Your task to perform on an android device: turn on the 12-hour format for clock Image 0: 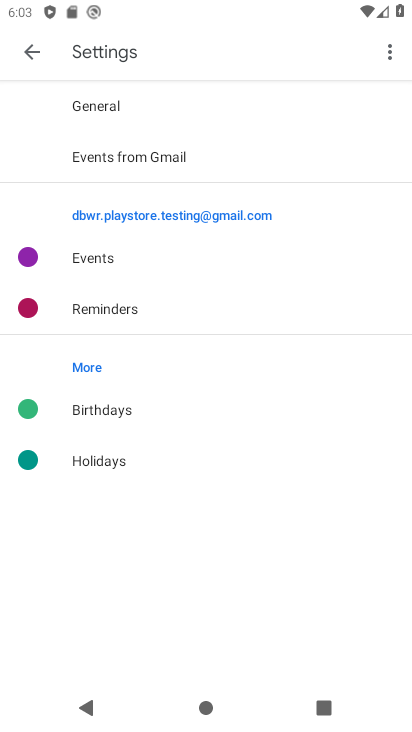
Step 0: press home button
Your task to perform on an android device: turn on the 12-hour format for clock Image 1: 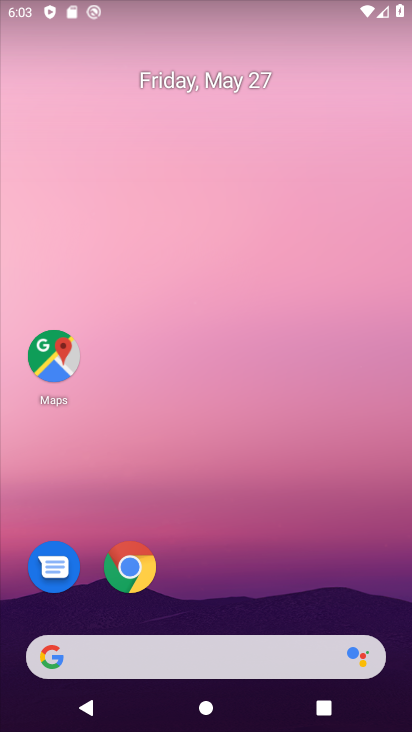
Step 1: drag from (250, 616) to (243, 214)
Your task to perform on an android device: turn on the 12-hour format for clock Image 2: 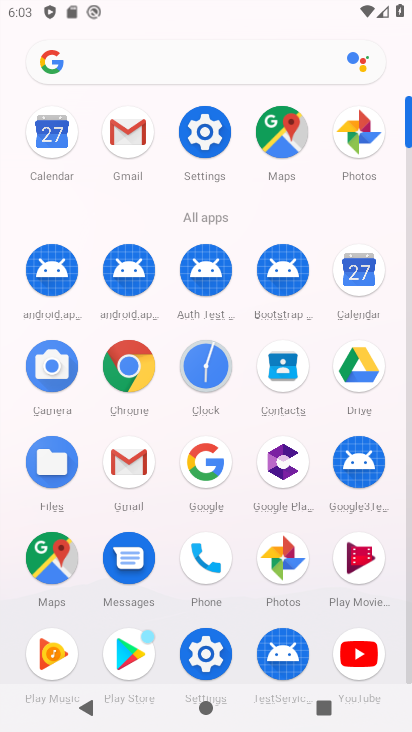
Step 2: click (205, 653)
Your task to perform on an android device: turn on the 12-hour format for clock Image 3: 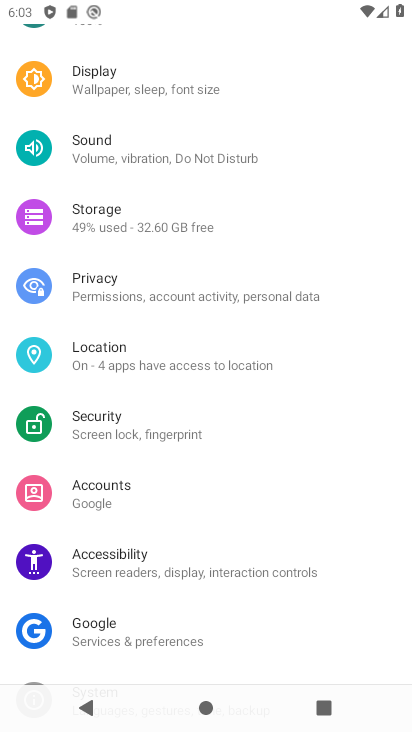
Step 3: drag from (184, 603) to (230, 255)
Your task to perform on an android device: turn on the 12-hour format for clock Image 4: 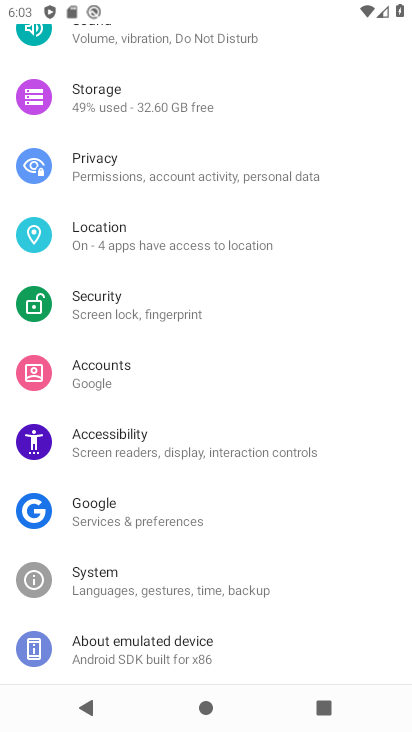
Step 4: press home button
Your task to perform on an android device: turn on the 12-hour format for clock Image 5: 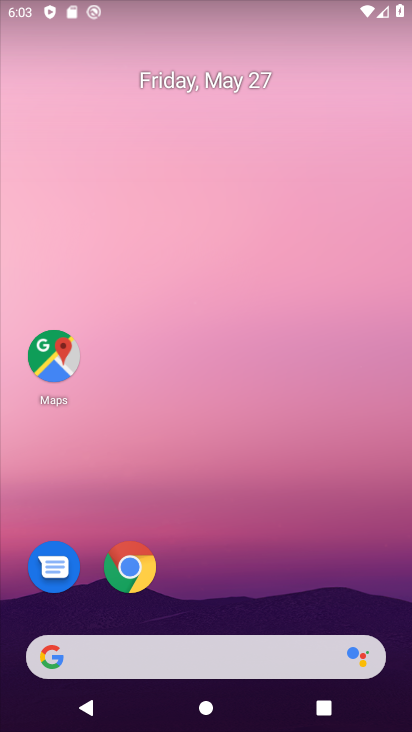
Step 5: drag from (207, 586) to (237, 169)
Your task to perform on an android device: turn on the 12-hour format for clock Image 6: 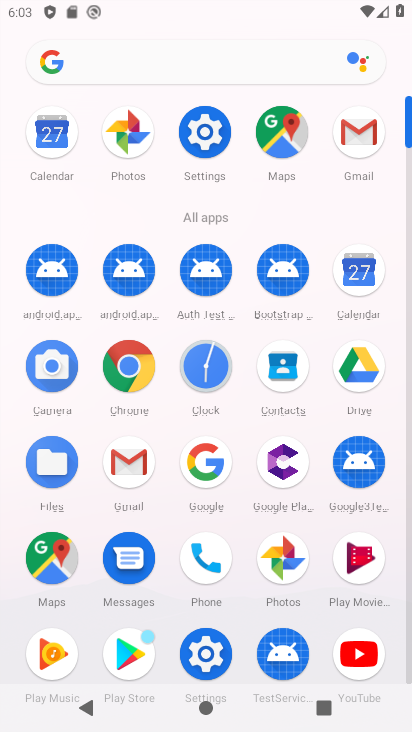
Step 6: click (204, 372)
Your task to perform on an android device: turn on the 12-hour format for clock Image 7: 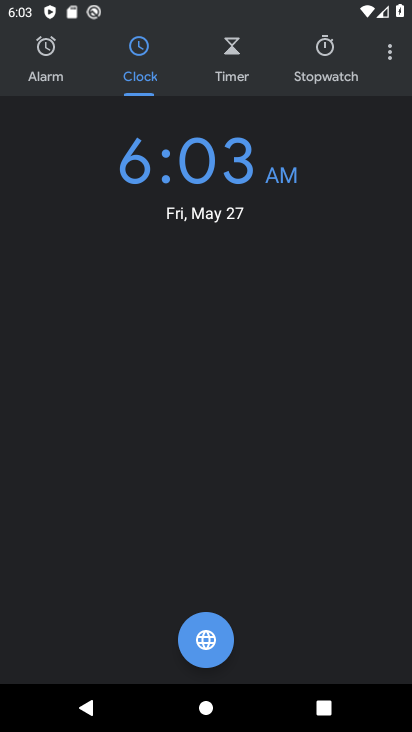
Step 7: click (388, 49)
Your task to perform on an android device: turn on the 12-hour format for clock Image 8: 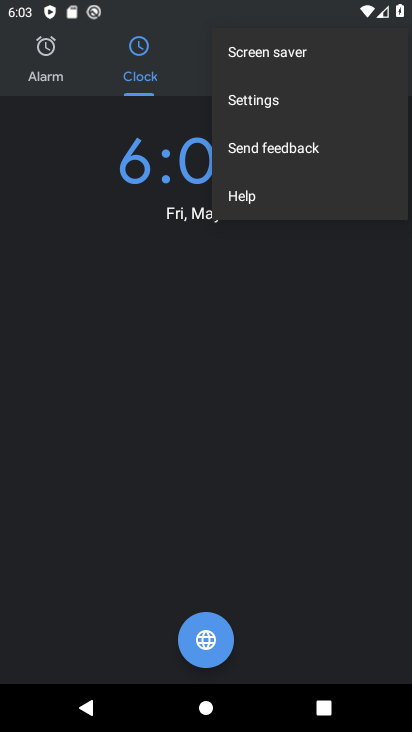
Step 8: click (245, 104)
Your task to perform on an android device: turn on the 12-hour format for clock Image 9: 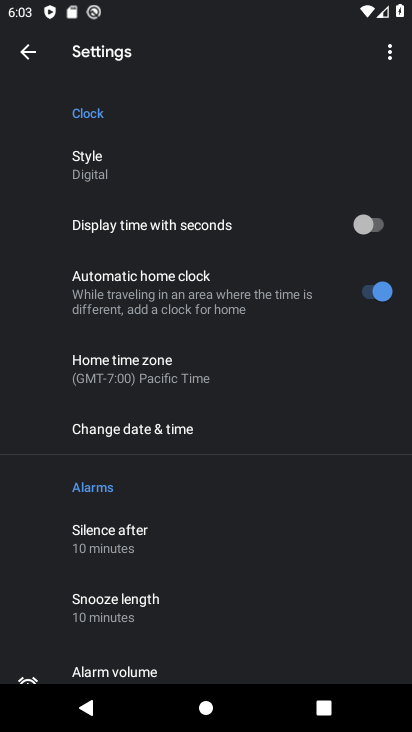
Step 9: click (136, 429)
Your task to perform on an android device: turn on the 12-hour format for clock Image 10: 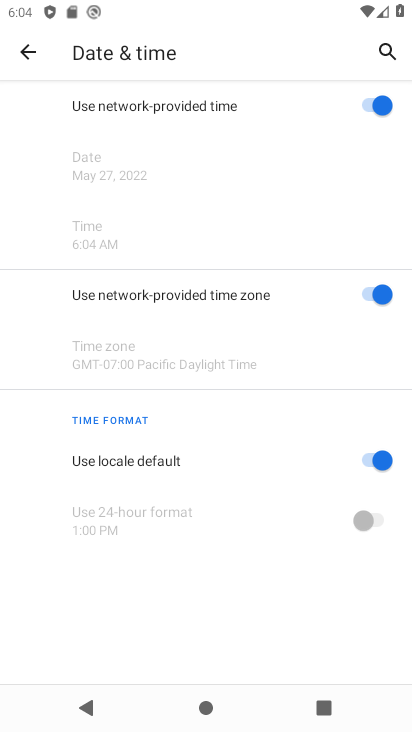
Step 10: task complete